Your task to perform on an android device: Open Google Chrome Image 0: 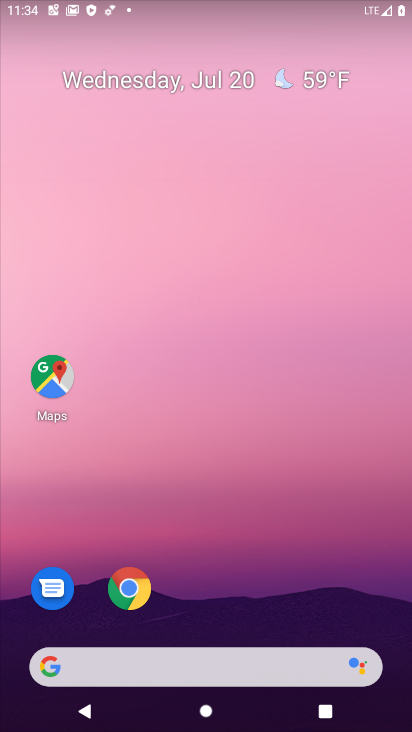
Step 0: drag from (161, 553) to (100, 2)
Your task to perform on an android device: Open Google Chrome Image 1: 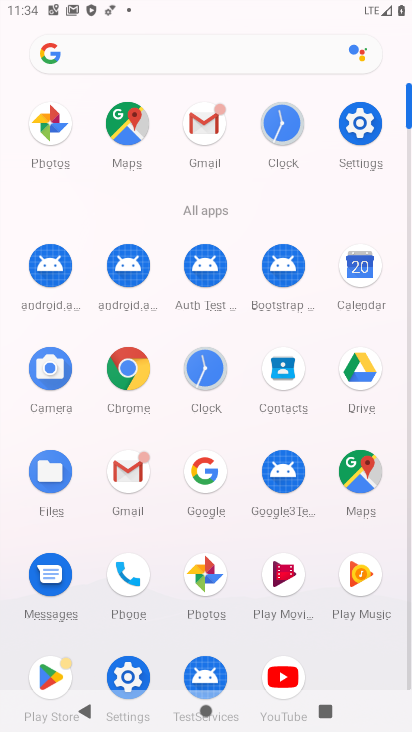
Step 1: click (120, 368)
Your task to perform on an android device: Open Google Chrome Image 2: 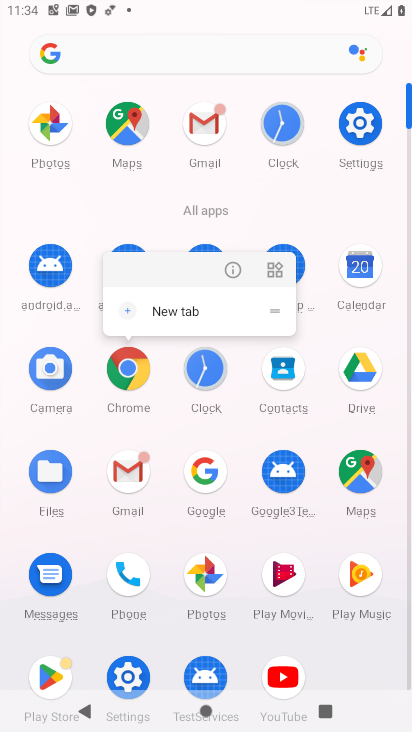
Step 2: click (133, 374)
Your task to perform on an android device: Open Google Chrome Image 3: 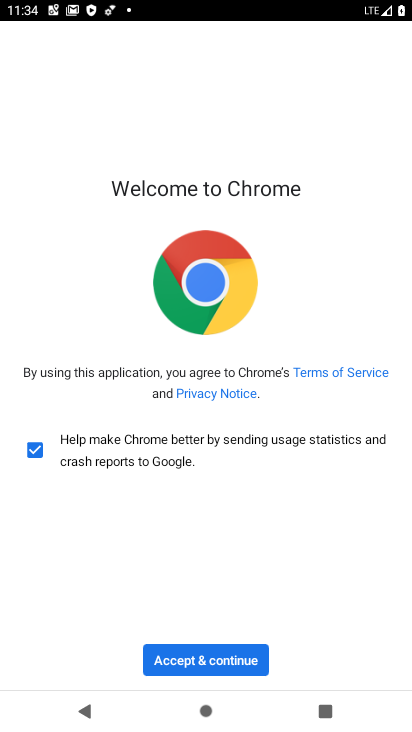
Step 3: click (174, 666)
Your task to perform on an android device: Open Google Chrome Image 4: 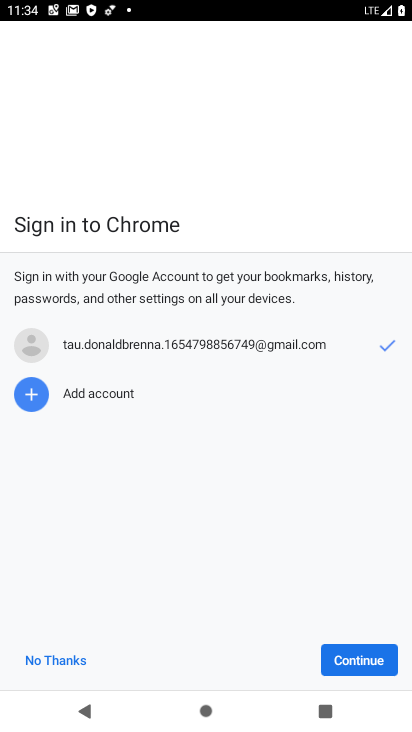
Step 4: click (359, 659)
Your task to perform on an android device: Open Google Chrome Image 5: 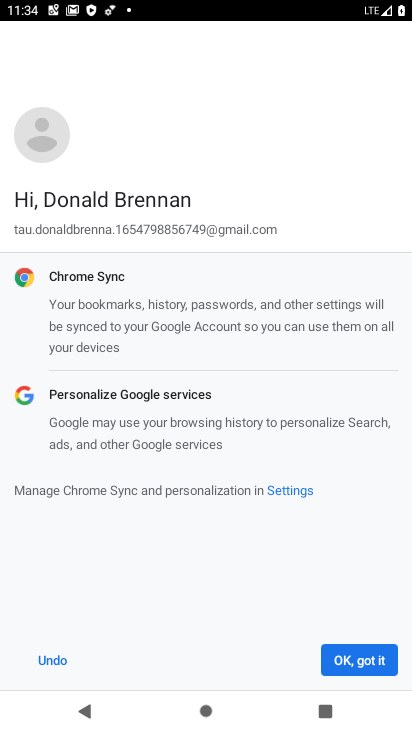
Step 5: click (359, 658)
Your task to perform on an android device: Open Google Chrome Image 6: 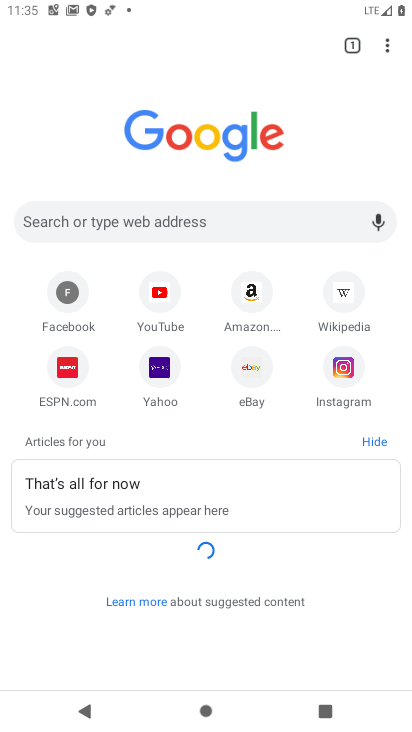
Step 6: task complete